Your task to perform on an android device: turn off smart reply in the gmail app Image 0: 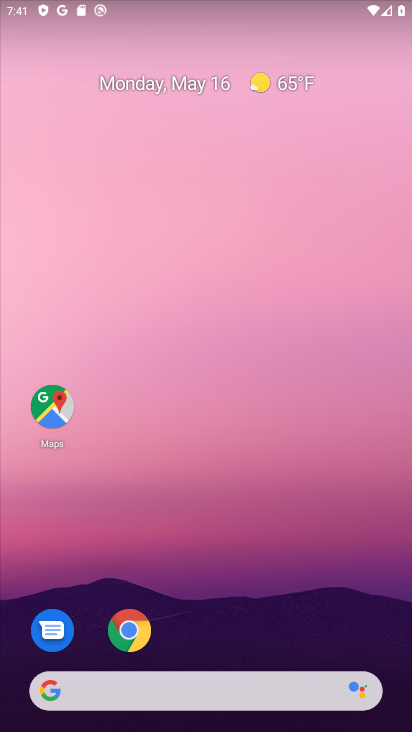
Step 0: drag from (196, 632) to (203, 197)
Your task to perform on an android device: turn off smart reply in the gmail app Image 1: 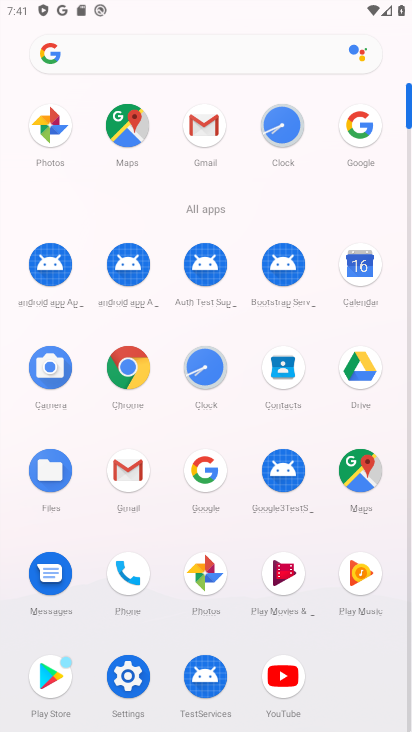
Step 1: click (208, 135)
Your task to perform on an android device: turn off smart reply in the gmail app Image 2: 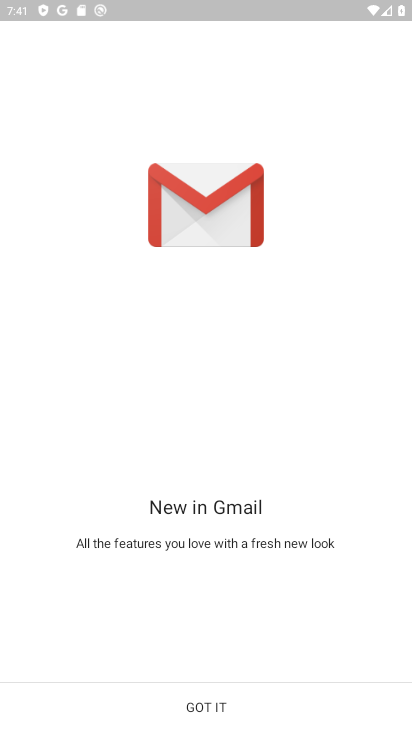
Step 2: click (209, 711)
Your task to perform on an android device: turn off smart reply in the gmail app Image 3: 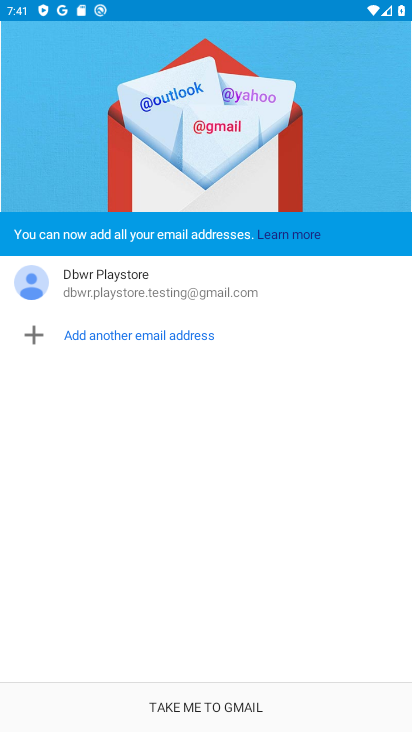
Step 3: click (211, 711)
Your task to perform on an android device: turn off smart reply in the gmail app Image 4: 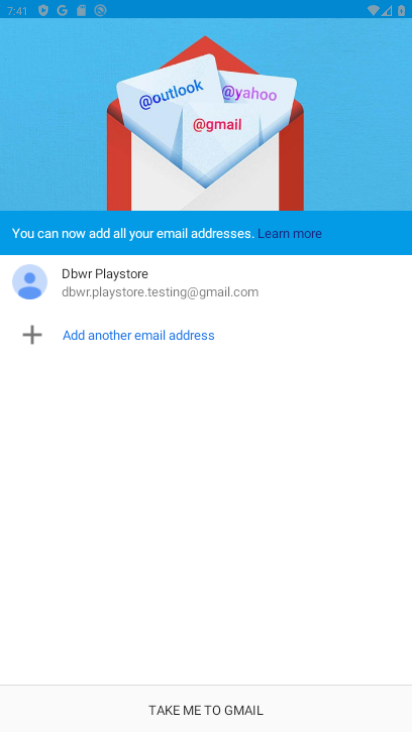
Step 4: click (211, 711)
Your task to perform on an android device: turn off smart reply in the gmail app Image 5: 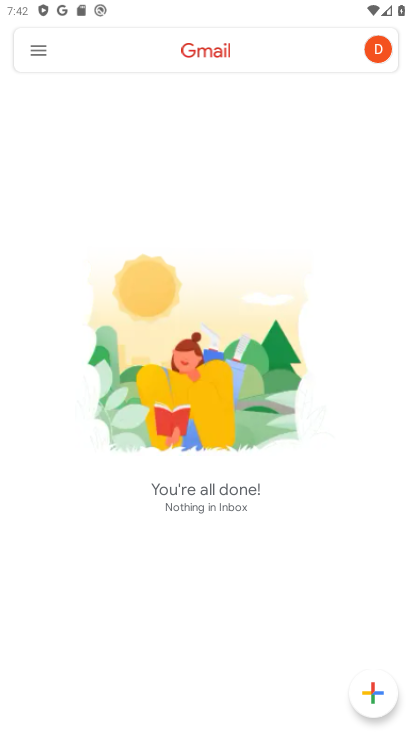
Step 5: click (39, 40)
Your task to perform on an android device: turn off smart reply in the gmail app Image 6: 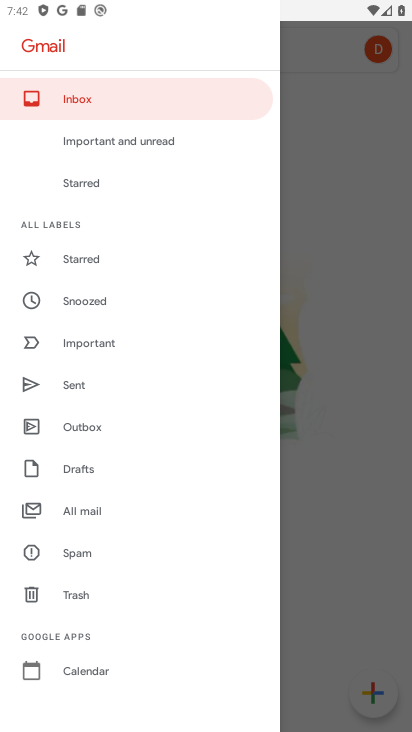
Step 6: drag from (112, 588) to (133, 268)
Your task to perform on an android device: turn off smart reply in the gmail app Image 7: 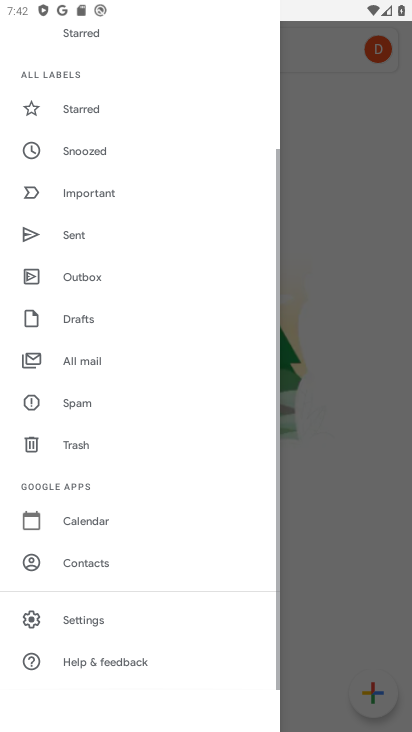
Step 7: click (98, 610)
Your task to perform on an android device: turn off smart reply in the gmail app Image 8: 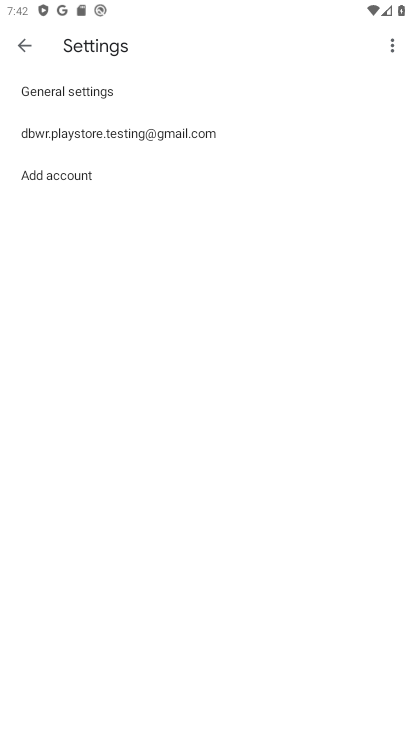
Step 8: click (90, 138)
Your task to perform on an android device: turn off smart reply in the gmail app Image 9: 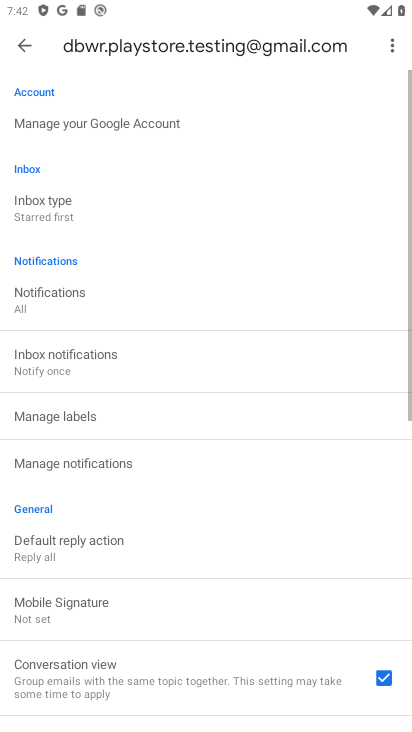
Step 9: drag from (186, 567) to (219, 144)
Your task to perform on an android device: turn off smart reply in the gmail app Image 10: 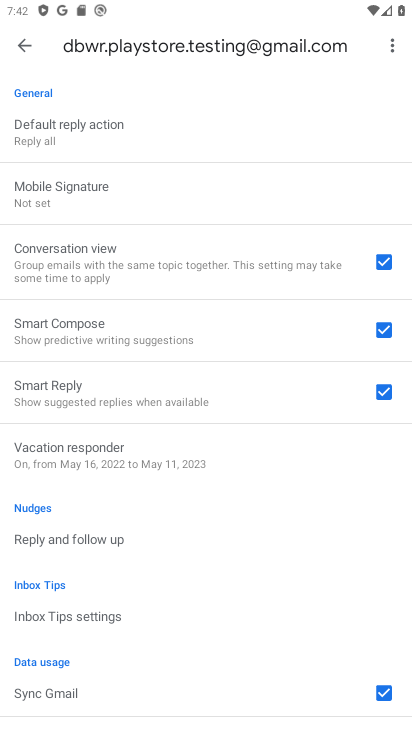
Step 10: click (385, 390)
Your task to perform on an android device: turn off smart reply in the gmail app Image 11: 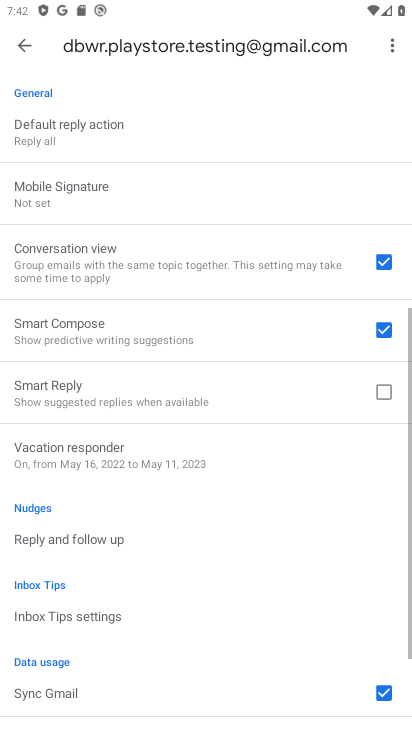
Step 11: task complete